Your task to perform on an android device: Open Chrome and go to settings Image 0: 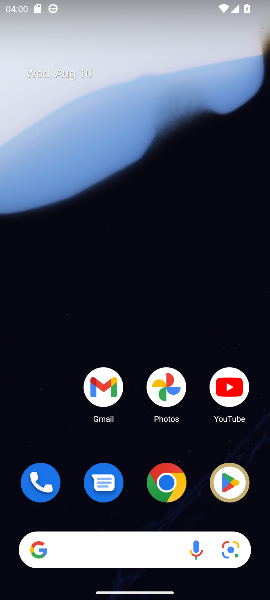
Step 0: drag from (133, 506) to (127, 48)
Your task to perform on an android device: Open Chrome and go to settings Image 1: 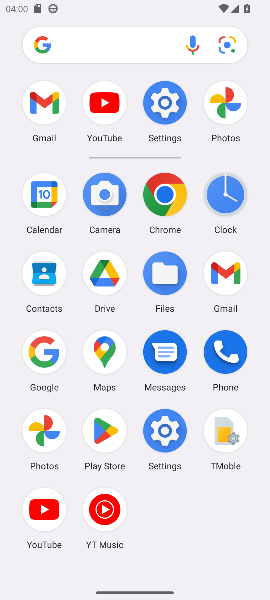
Step 1: click (167, 194)
Your task to perform on an android device: Open Chrome and go to settings Image 2: 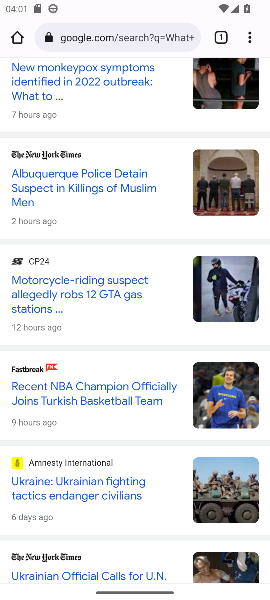
Step 2: task complete